Your task to perform on an android device: find which apps use the phone's location Image 0: 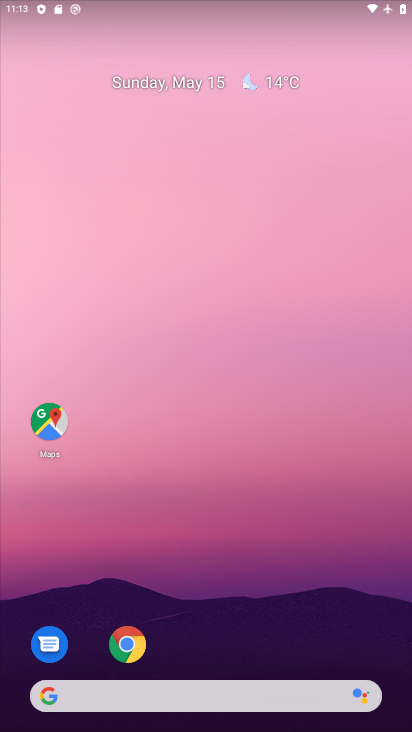
Step 0: drag from (246, 589) to (183, 342)
Your task to perform on an android device: find which apps use the phone's location Image 1: 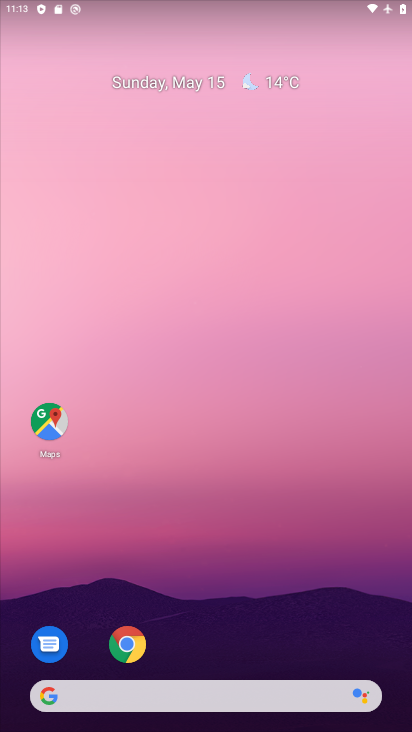
Step 1: drag from (224, 648) to (208, 51)
Your task to perform on an android device: find which apps use the phone's location Image 2: 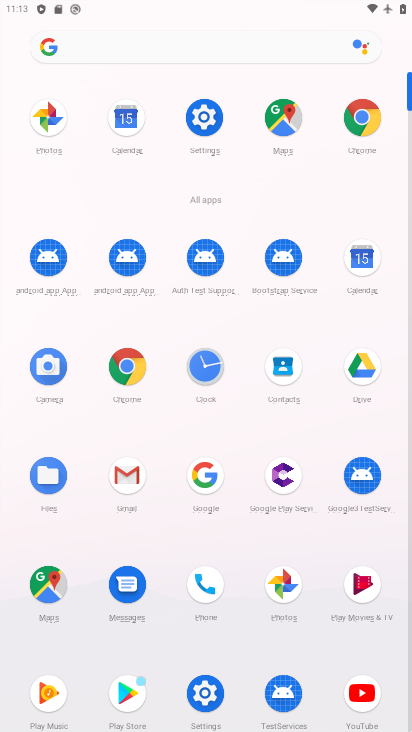
Step 2: click (218, 695)
Your task to perform on an android device: find which apps use the phone's location Image 3: 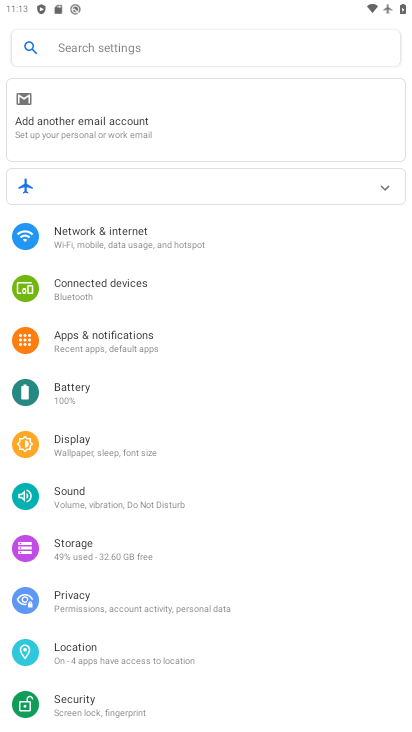
Step 3: click (109, 657)
Your task to perform on an android device: find which apps use the phone's location Image 4: 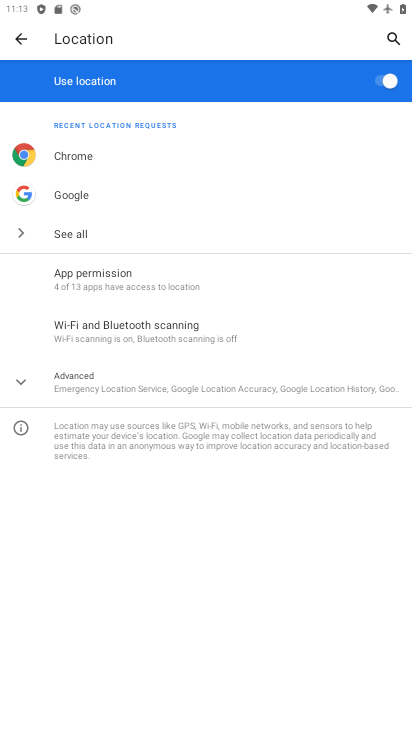
Step 4: click (101, 289)
Your task to perform on an android device: find which apps use the phone's location Image 5: 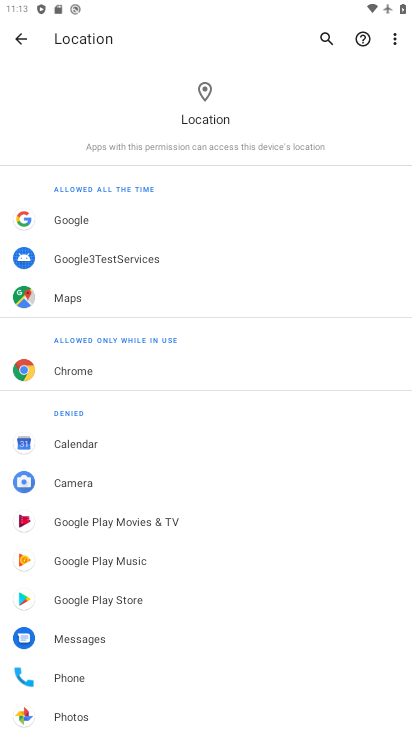
Step 5: task complete